Your task to perform on an android device: change alarm snooze length Image 0: 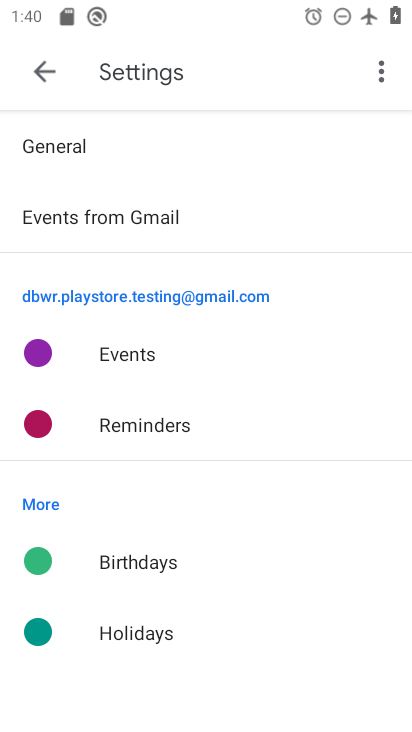
Step 0: press home button
Your task to perform on an android device: change alarm snooze length Image 1: 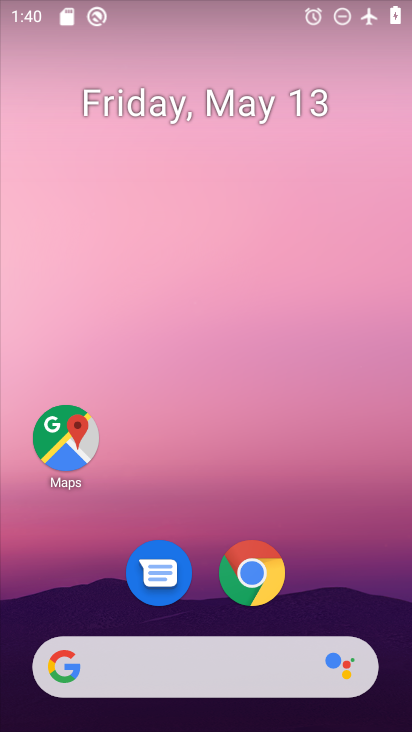
Step 1: drag from (247, 719) to (202, 69)
Your task to perform on an android device: change alarm snooze length Image 2: 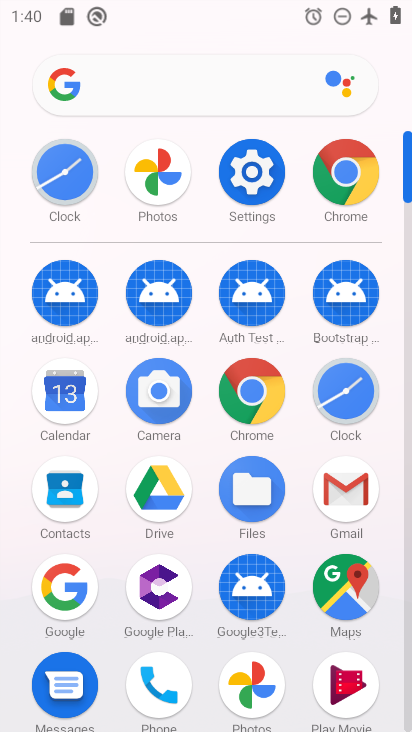
Step 2: click (60, 194)
Your task to perform on an android device: change alarm snooze length Image 3: 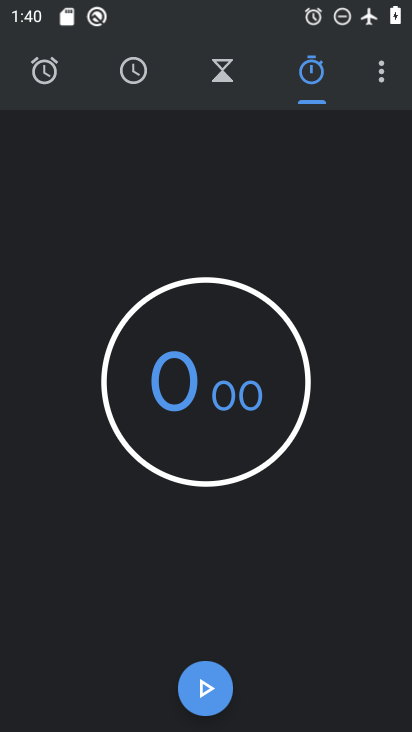
Step 3: click (378, 70)
Your task to perform on an android device: change alarm snooze length Image 4: 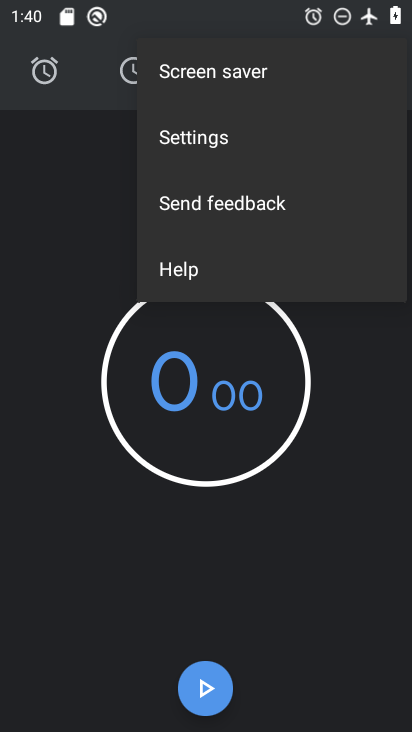
Step 4: click (227, 137)
Your task to perform on an android device: change alarm snooze length Image 5: 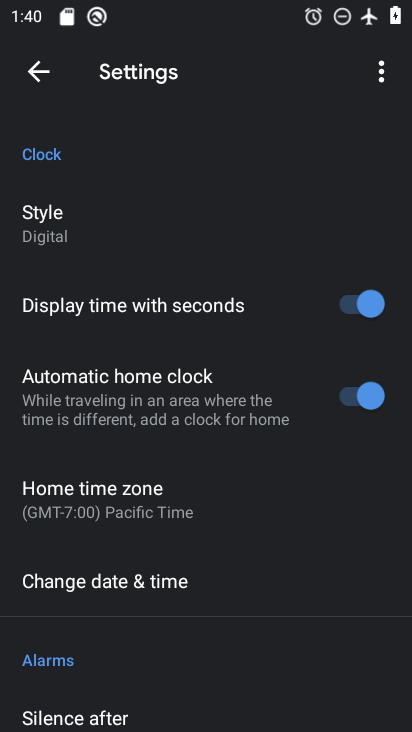
Step 5: drag from (291, 702) to (305, 118)
Your task to perform on an android device: change alarm snooze length Image 6: 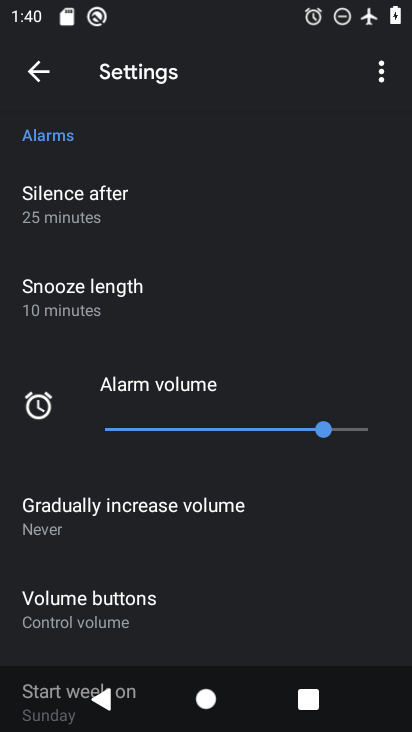
Step 6: drag from (200, 662) to (234, 169)
Your task to perform on an android device: change alarm snooze length Image 7: 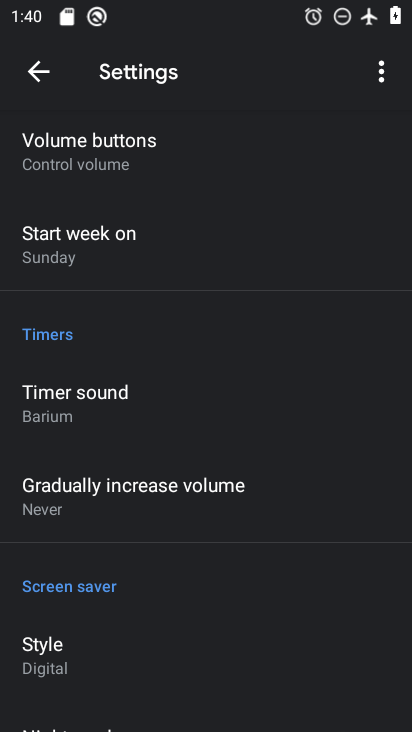
Step 7: drag from (223, 203) to (247, 698)
Your task to perform on an android device: change alarm snooze length Image 8: 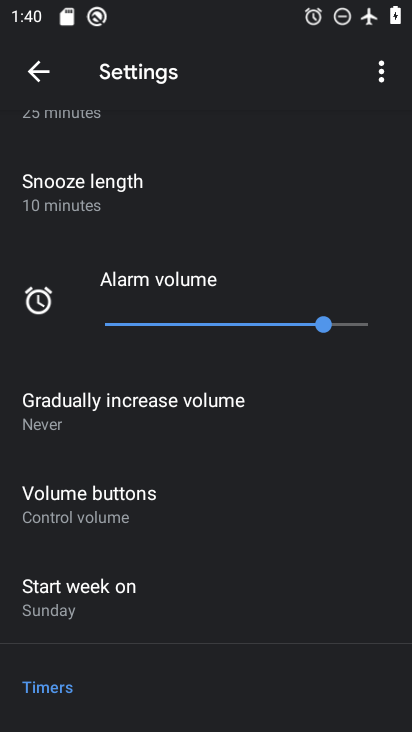
Step 8: click (78, 208)
Your task to perform on an android device: change alarm snooze length Image 9: 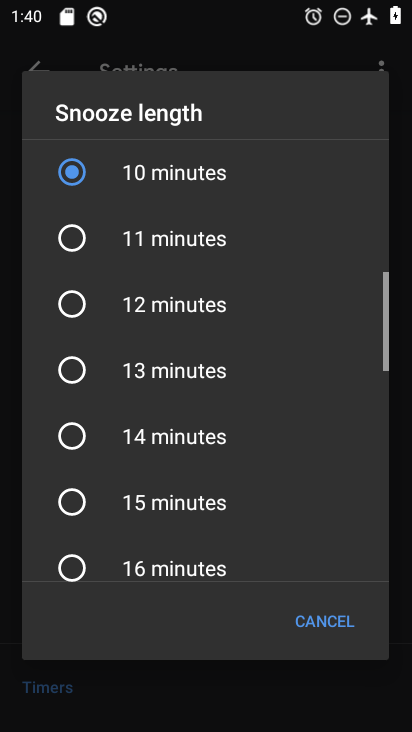
Step 9: click (191, 246)
Your task to perform on an android device: change alarm snooze length Image 10: 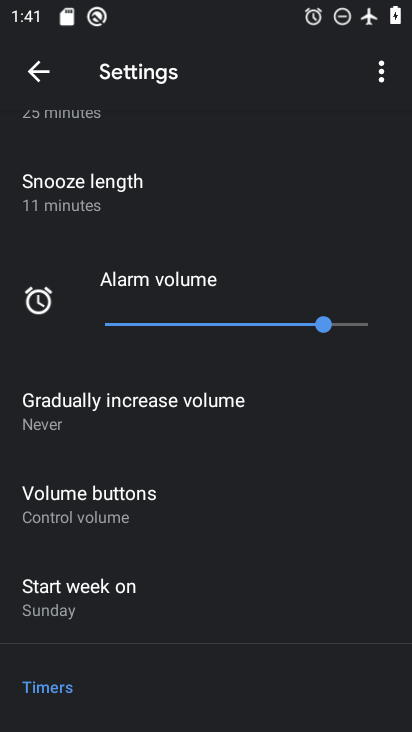
Step 10: task complete